Your task to perform on an android device: toggle priority inbox in the gmail app Image 0: 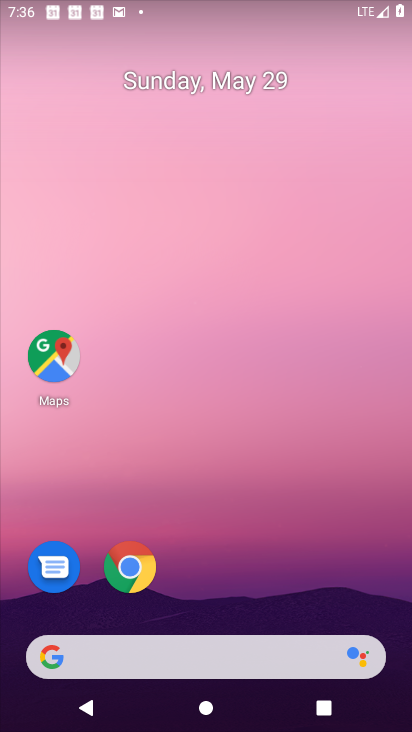
Step 0: drag from (249, 613) to (219, 321)
Your task to perform on an android device: toggle priority inbox in the gmail app Image 1: 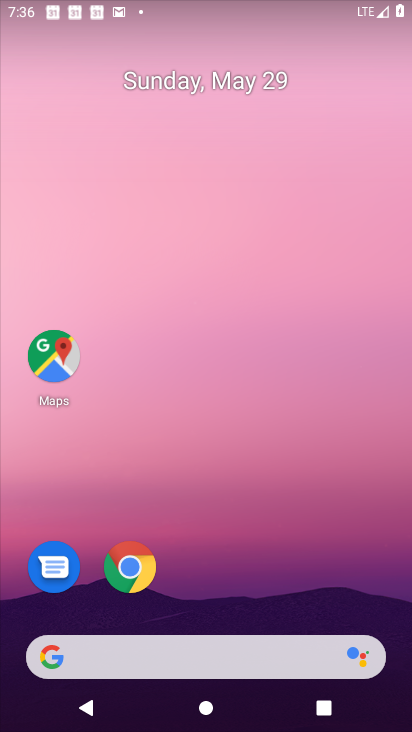
Step 1: drag from (227, 540) to (233, 312)
Your task to perform on an android device: toggle priority inbox in the gmail app Image 2: 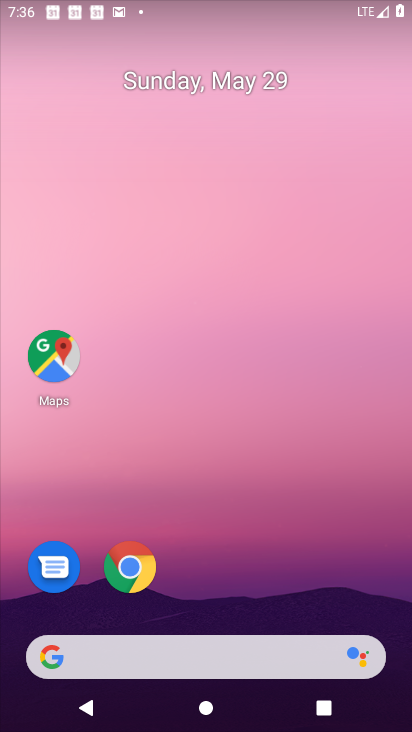
Step 2: drag from (209, 640) to (214, 231)
Your task to perform on an android device: toggle priority inbox in the gmail app Image 3: 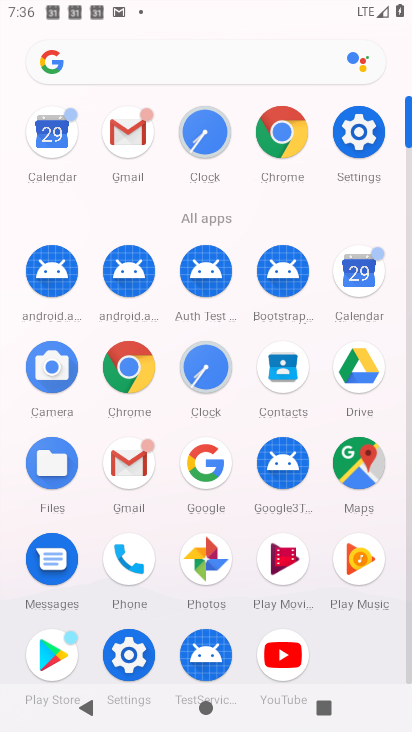
Step 3: click (128, 129)
Your task to perform on an android device: toggle priority inbox in the gmail app Image 4: 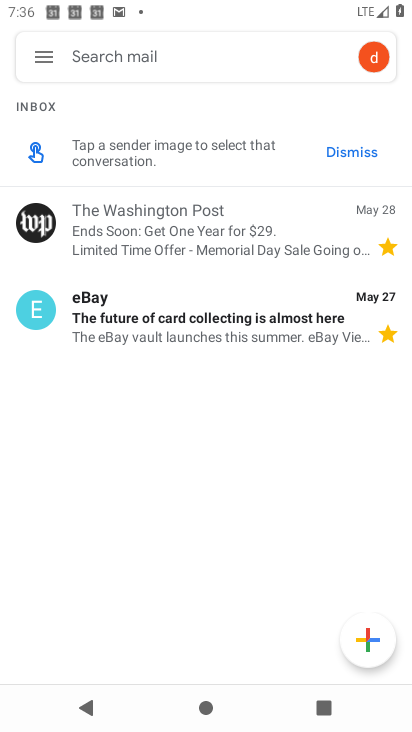
Step 4: click (46, 51)
Your task to perform on an android device: toggle priority inbox in the gmail app Image 5: 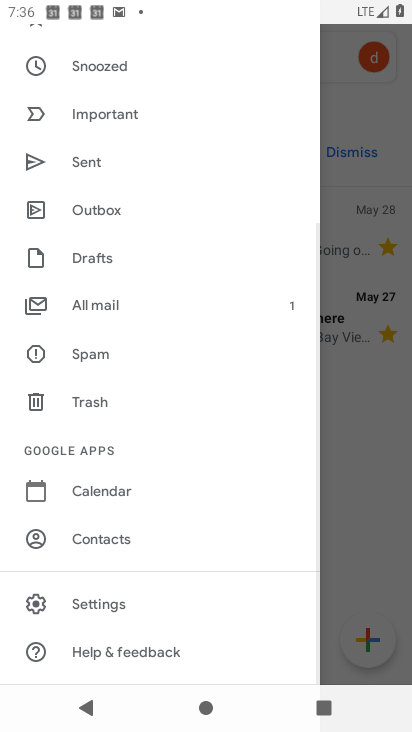
Step 5: click (112, 612)
Your task to perform on an android device: toggle priority inbox in the gmail app Image 6: 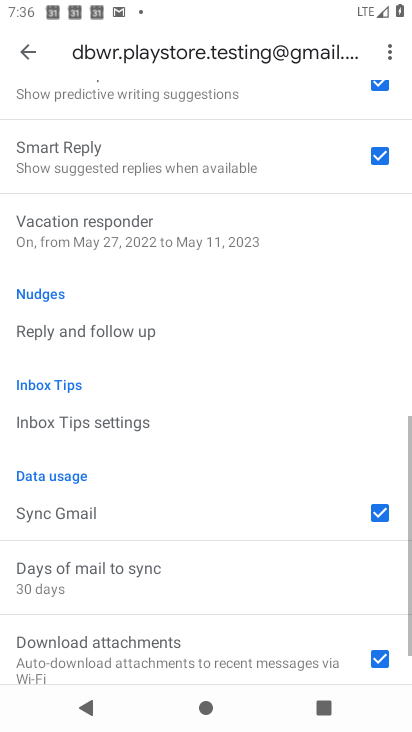
Step 6: drag from (123, 578) to (145, 453)
Your task to perform on an android device: toggle priority inbox in the gmail app Image 7: 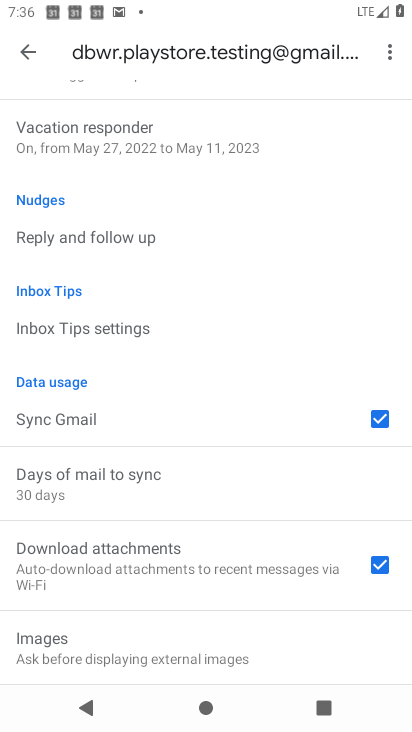
Step 7: drag from (149, 585) to (191, 317)
Your task to perform on an android device: toggle priority inbox in the gmail app Image 8: 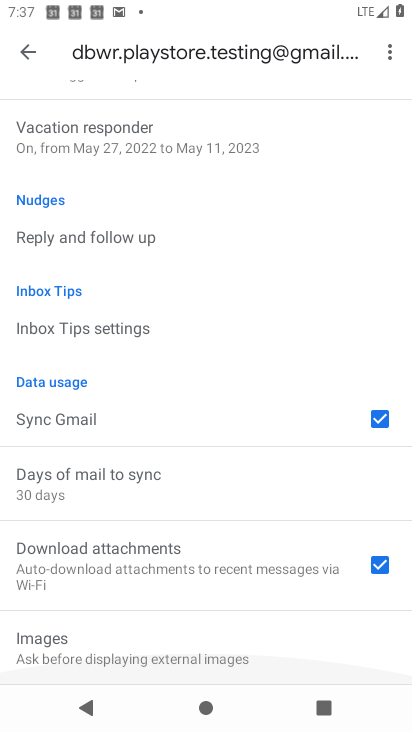
Step 8: drag from (181, 258) to (185, 610)
Your task to perform on an android device: toggle priority inbox in the gmail app Image 9: 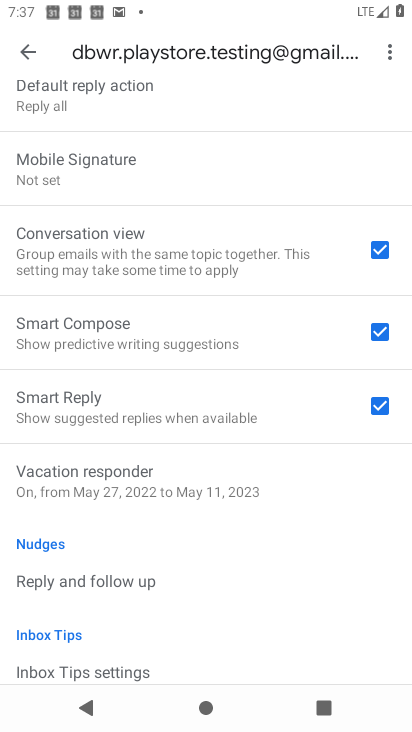
Step 9: drag from (144, 141) to (171, 561)
Your task to perform on an android device: toggle priority inbox in the gmail app Image 10: 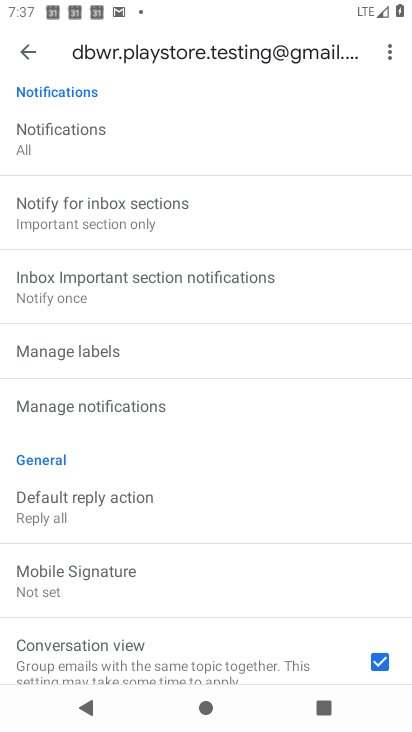
Step 10: drag from (68, 223) to (67, 563)
Your task to perform on an android device: toggle priority inbox in the gmail app Image 11: 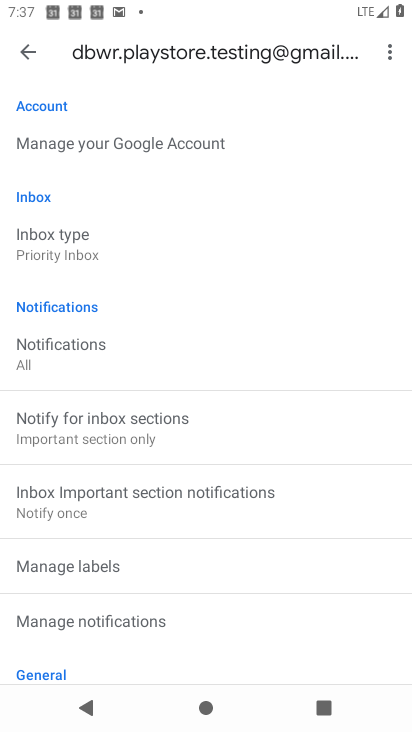
Step 11: click (54, 242)
Your task to perform on an android device: toggle priority inbox in the gmail app Image 12: 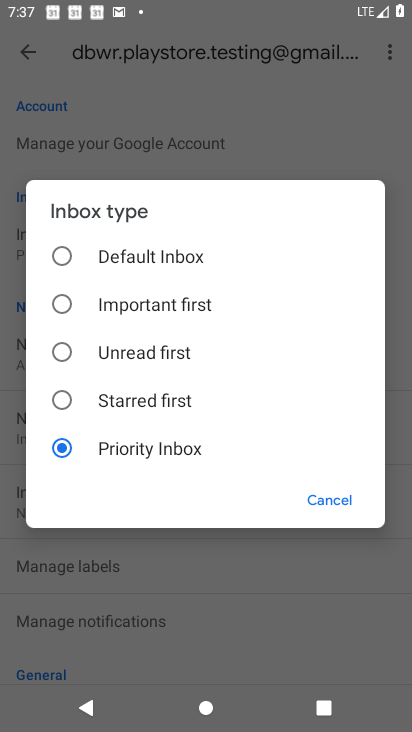
Step 12: click (126, 256)
Your task to perform on an android device: toggle priority inbox in the gmail app Image 13: 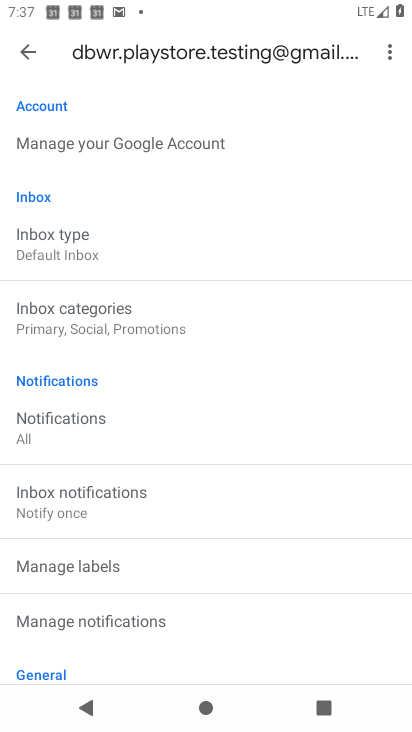
Step 13: task complete